Your task to perform on an android device: change the clock style Image 0: 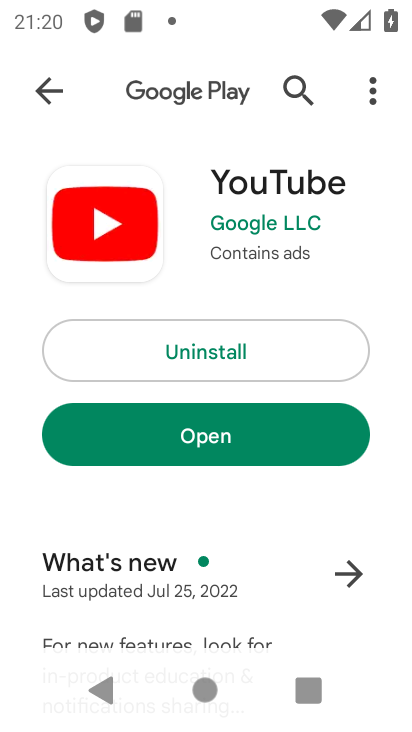
Step 0: press home button
Your task to perform on an android device: change the clock style Image 1: 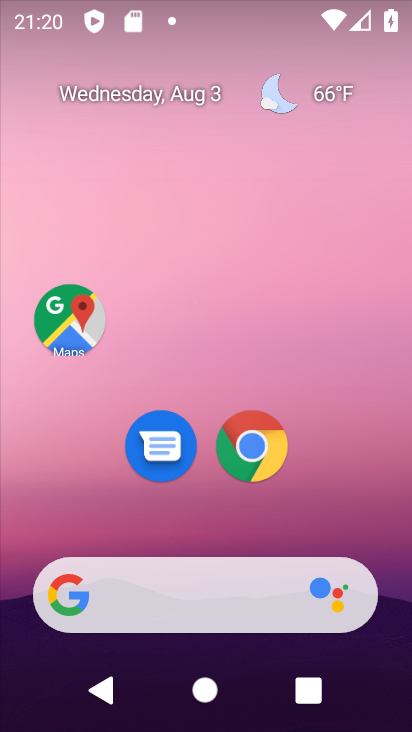
Step 1: drag from (391, 624) to (331, 0)
Your task to perform on an android device: change the clock style Image 2: 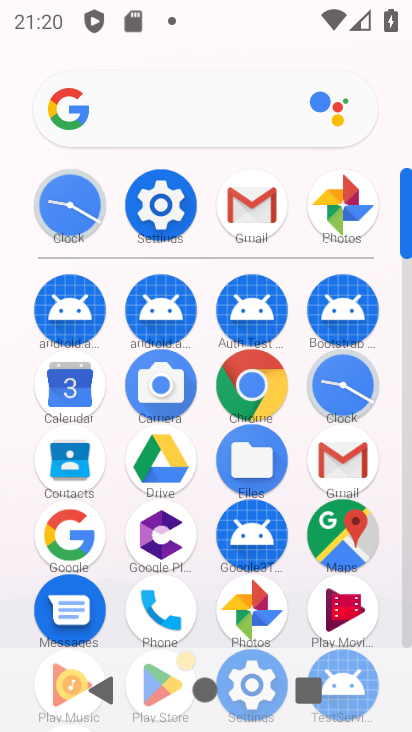
Step 2: click (362, 385)
Your task to perform on an android device: change the clock style Image 3: 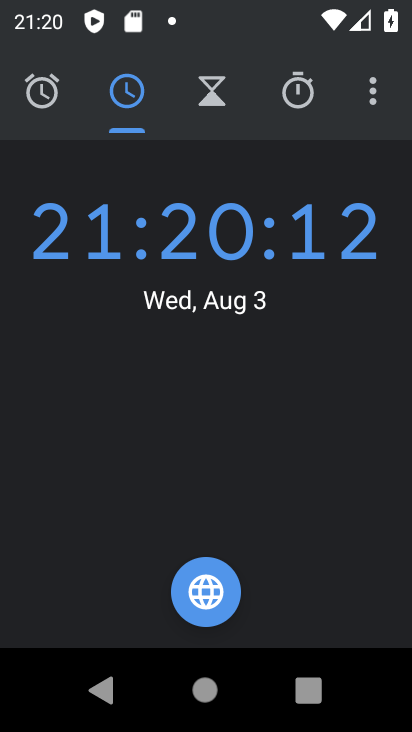
Step 3: click (369, 101)
Your task to perform on an android device: change the clock style Image 4: 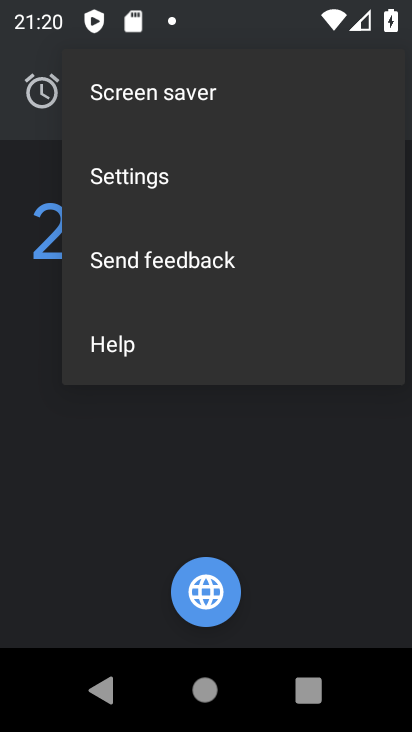
Step 4: click (112, 177)
Your task to perform on an android device: change the clock style Image 5: 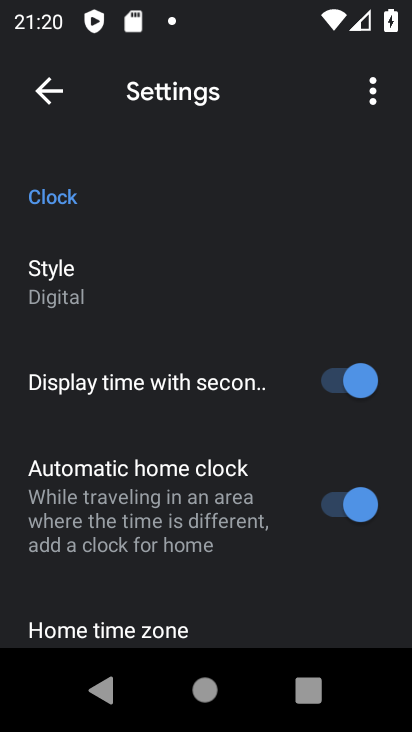
Step 5: click (59, 280)
Your task to perform on an android device: change the clock style Image 6: 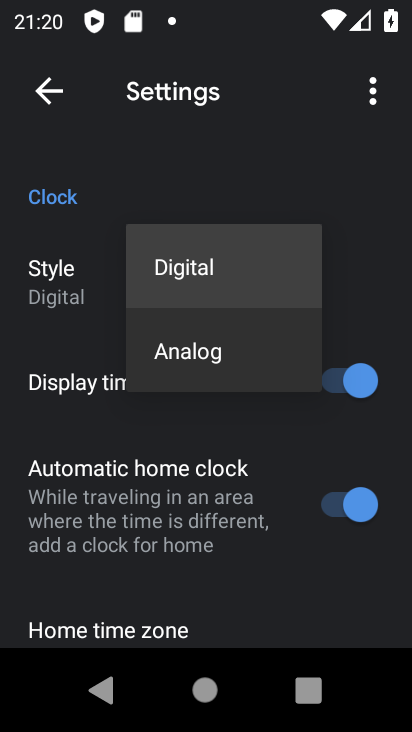
Step 6: click (186, 354)
Your task to perform on an android device: change the clock style Image 7: 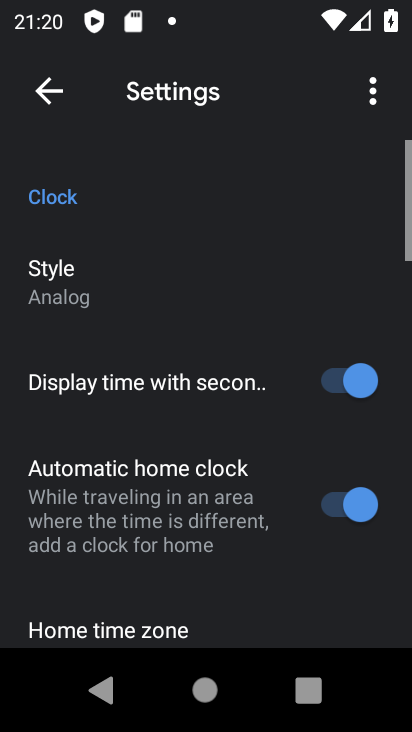
Step 7: task complete